Your task to perform on an android device: turn on data saver in the chrome app Image 0: 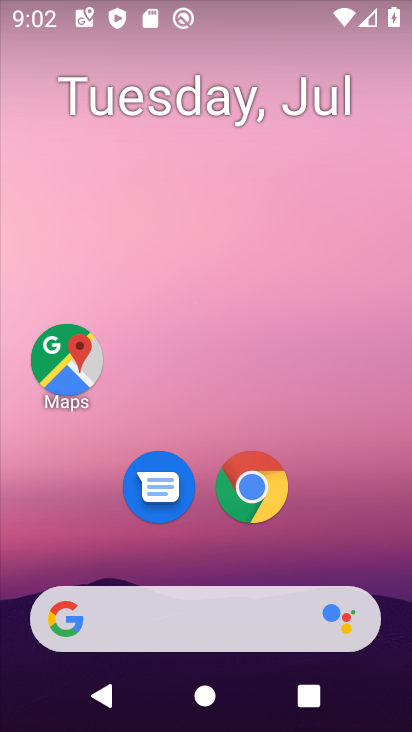
Step 0: click (259, 476)
Your task to perform on an android device: turn on data saver in the chrome app Image 1: 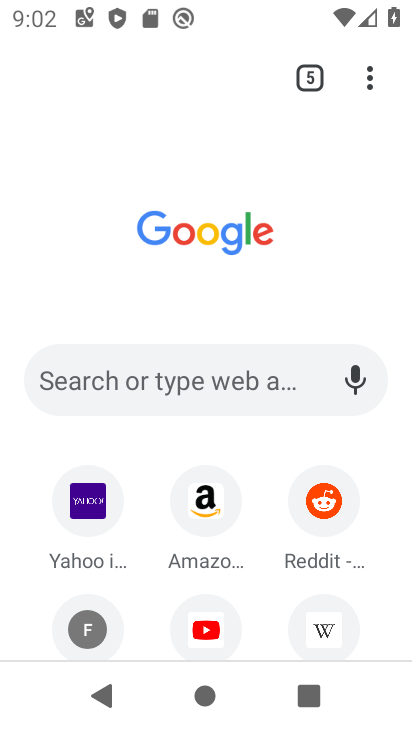
Step 1: drag from (364, 79) to (98, 552)
Your task to perform on an android device: turn on data saver in the chrome app Image 2: 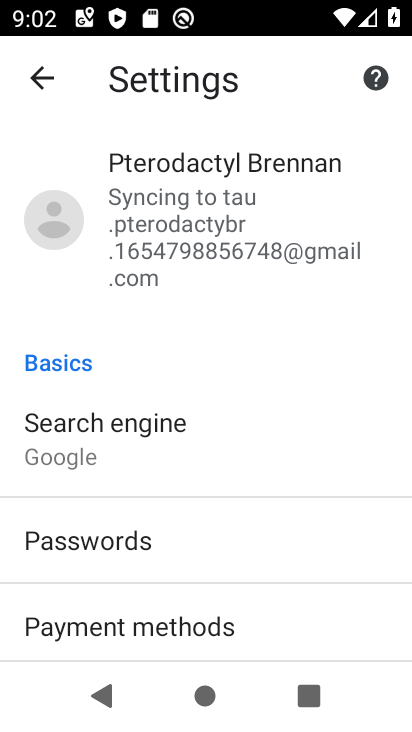
Step 2: drag from (129, 622) to (346, 0)
Your task to perform on an android device: turn on data saver in the chrome app Image 3: 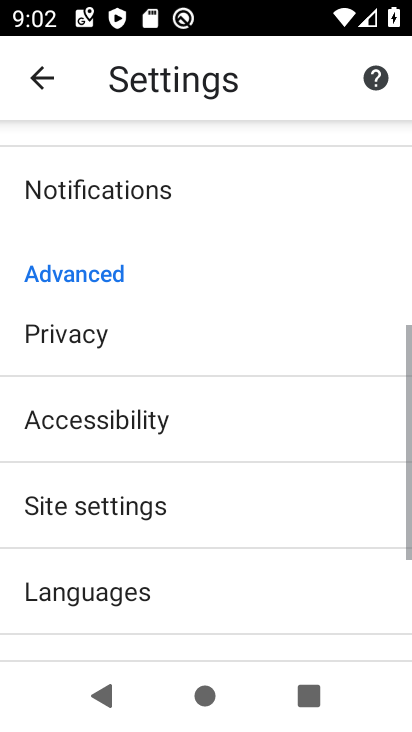
Step 3: drag from (168, 582) to (199, 244)
Your task to perform on an android device: turn on data saver in the chrome app Image 4: 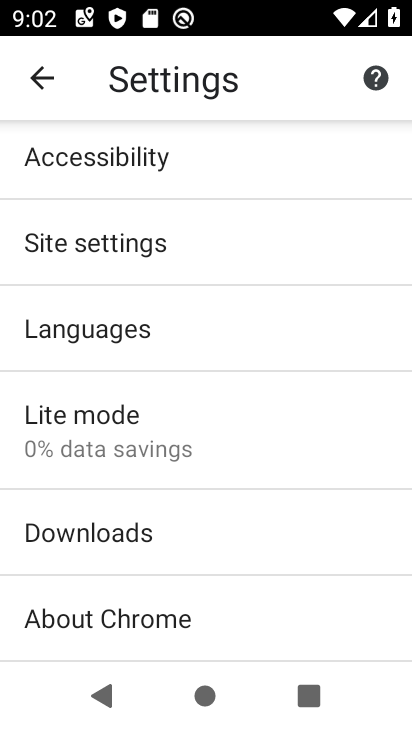
Step 4: click (131, 435)
Your task to perform on an android device: turn on data saver in the chrome app Image 5: 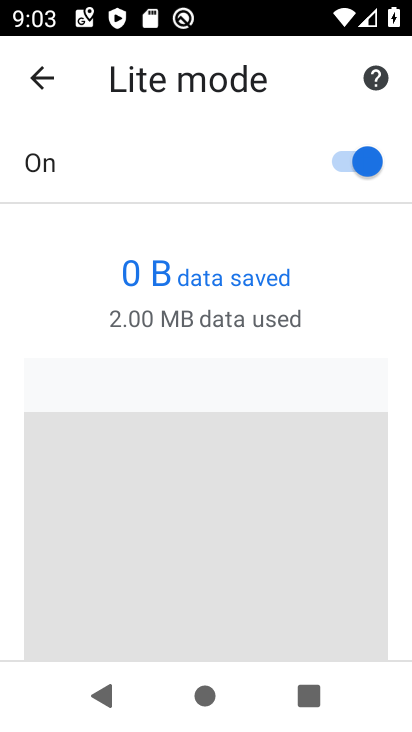
Step 5: task complete